Your task to perform on an android device: open a new tab in the chrome app Image 0: 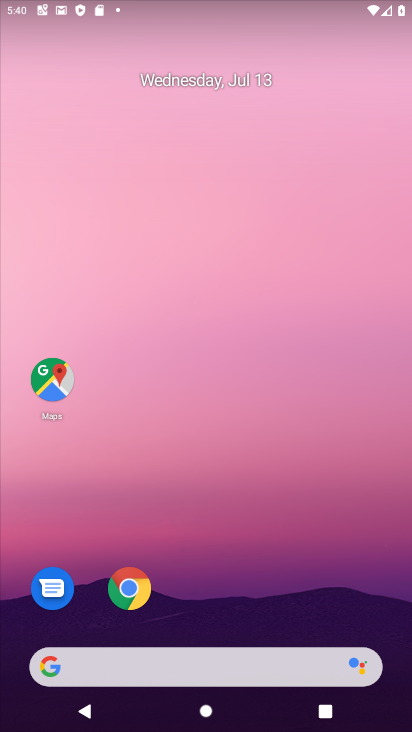
Step 0: click (119, 595)
Your task to perform on an android device: open a new tab in the chrome app Image 1: 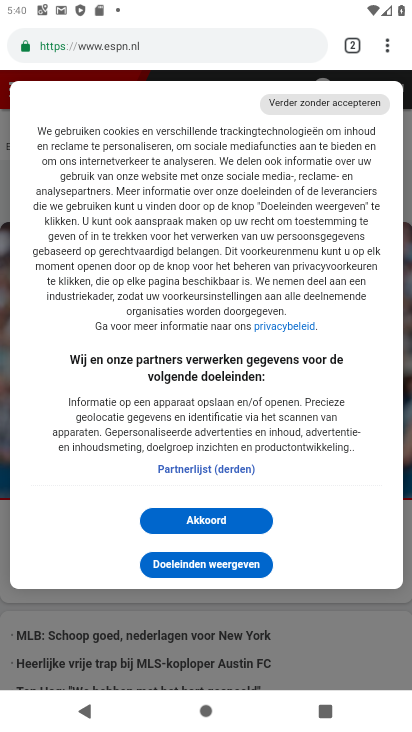
Step 1: click (390, 47)
Your task to perform on an android device: open a new tab in the chrome app Image 2: 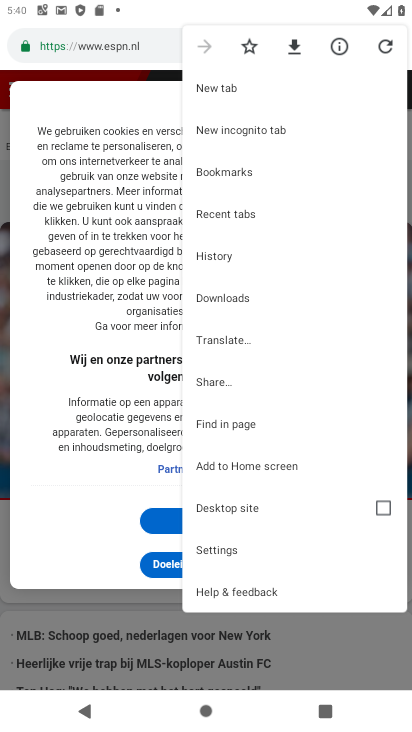
Step 2: click (228, 89)
Your task to perform on an android device: open a new tab in the chrome app Image 3: 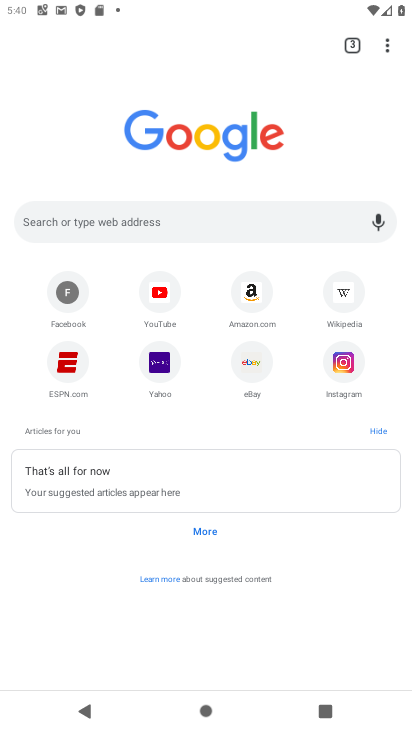
Step 3: task complete